Your task to perform on an android device: toggle priority inbox in the gmail app Image 0: 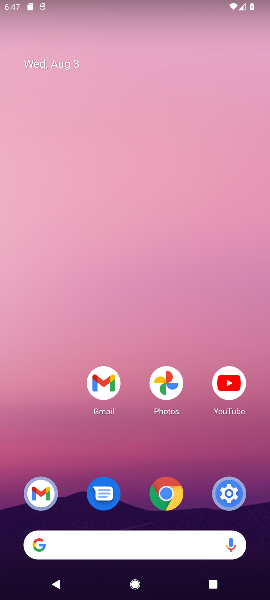
Step 0: drag from (125, 481) to (132, 91)
Your task to perform on an android device: toggle priority inbox in the gmail app Image 1: 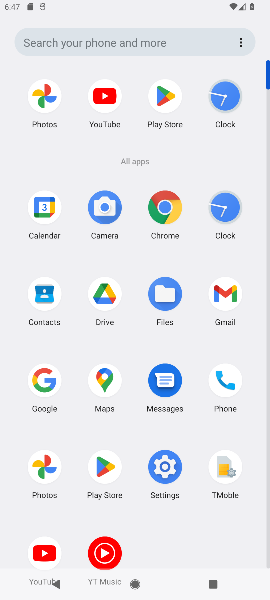
Step 1: click (227, 286)
Your task to perform on an android device: toggle priority inbox in the gmail app Image 2: 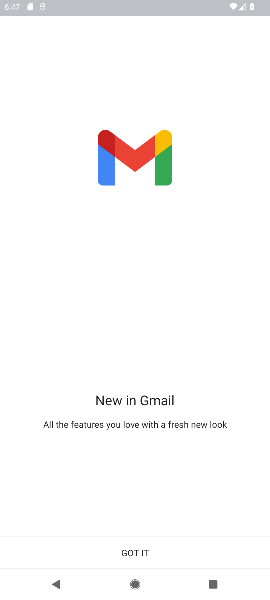
Step 2: click (143, 548)
Your task to perform on an android device: toggle priority inbox in the gmail app Image 3: 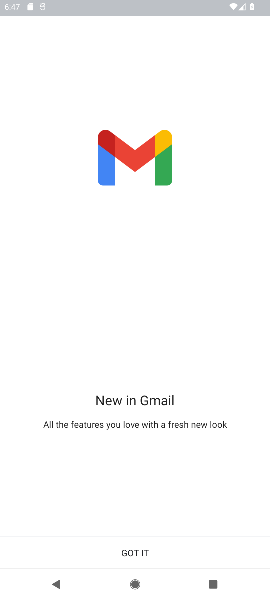
Step 3: click (143, 548)
Your task to perform on an android device: toggle priority inbox in the gmail app Image 4: 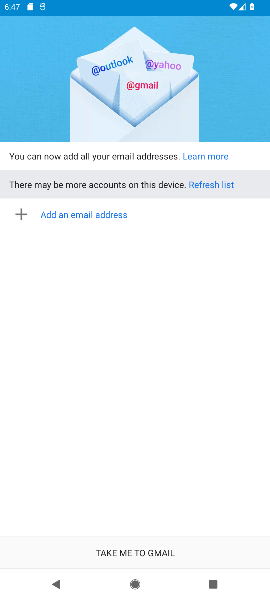
Step 4: click (135, 545)
Your task to perform on an android device: toggle priority inbox in the gmail app Image 5: 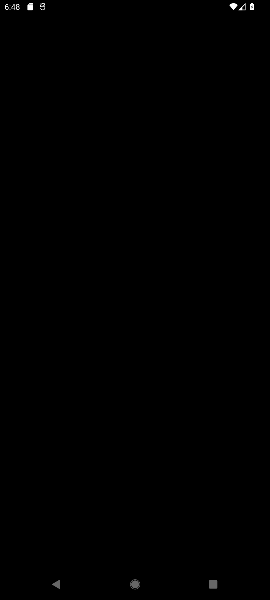
Step 5: drag from (130, 454) to (138, 37)
Your task to perform on an android device: toggle priority inbox in the gmail app Image 6: 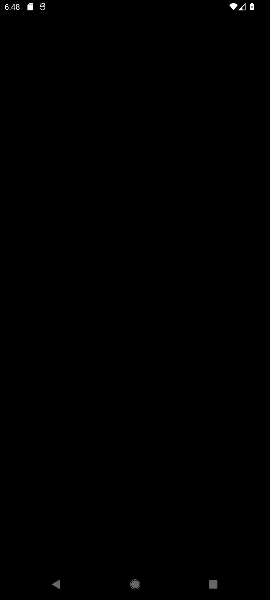
Step 6: drag from (148, 378) to (151, 135)
Your task to perform on an android device: toggle priority inbox in the gmail app Image 7: 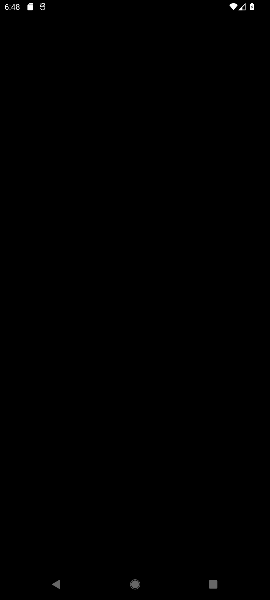
Step 7: drag from (176, 453) to (179, 188)
Your task to perform on an android device: toggle priority inbox in the gmail app Image 8: 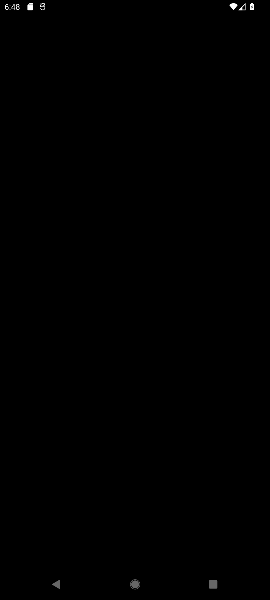
Step 8: drag from (172, 356) to (153, 66)
Your task to perform on an android device: toggle priority inbox in the gmail app Image 9: 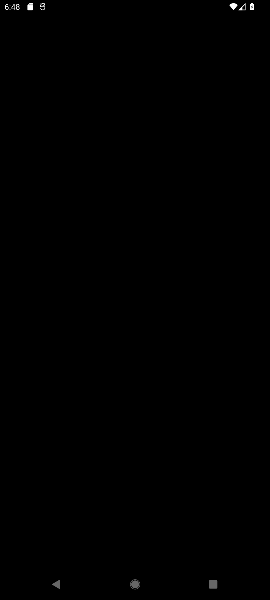
Step 9: click (159, 170)
Your task to perform on an android device: toggle priority inbox in the gmail app Image 10: 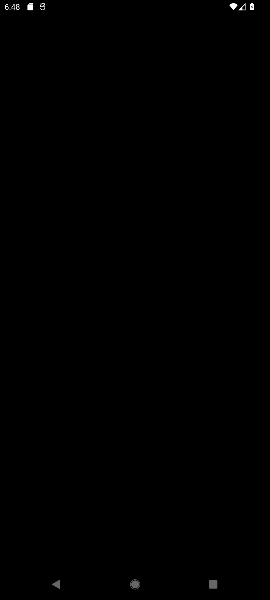
Step 10: task complete